Your task to perform on an android device: Open the phone app and click the voicemail tab. Image 0: 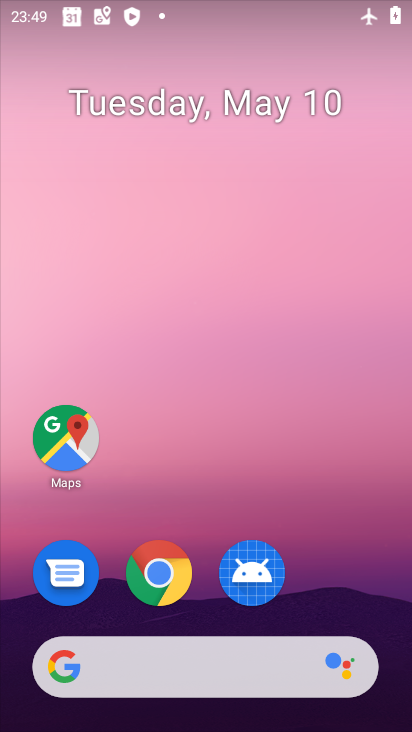
Step 0: drag from (308, 507) to (197, 147)
Your task to perform on an android device: Open the phone app and click the voicemail tab. Image 1: 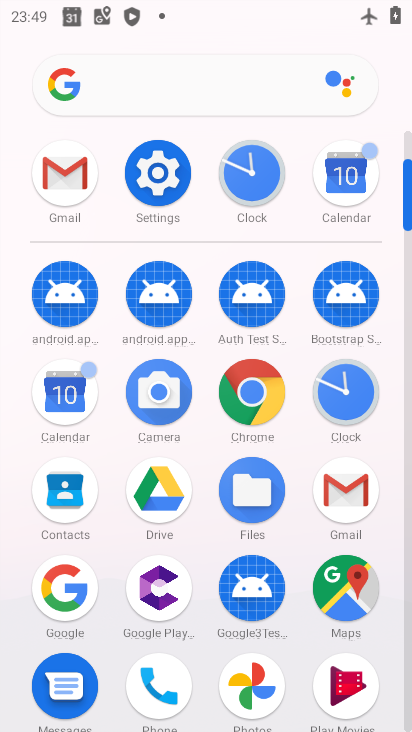
Step 1: click (165, 673)
Your task to perform on an android device: Open the phone app and click the voicemail tab. Image 2: 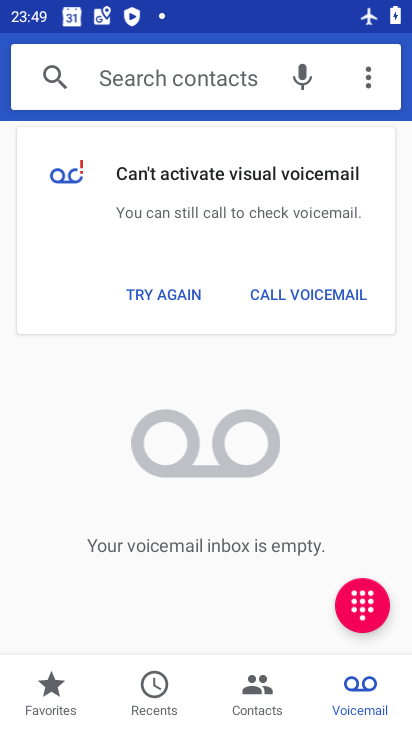
Step 2: click (360, 702)
Your task to perform on an android device: Open the phone app and click the voicemail tab. Image 3: 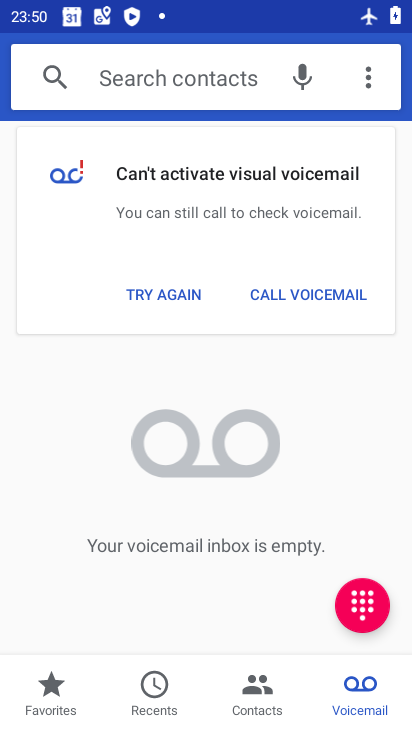
Step 3: task complete